Your task to perform on an android device: add a contact in the contacts app Image 0: 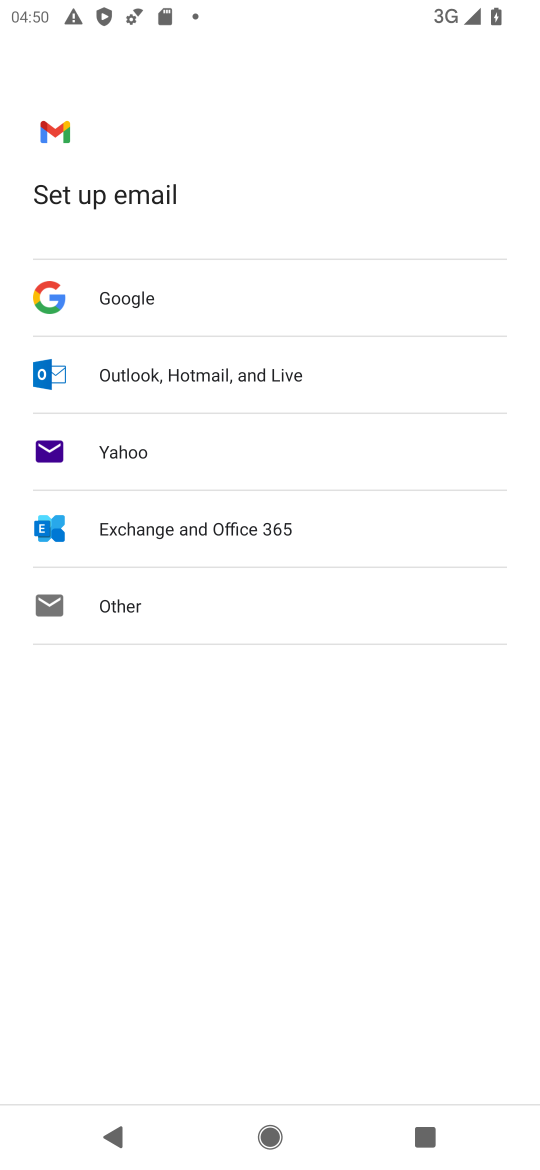
Step 0: press home button
Your task to perform on an android device: add a contact in the contacts app Image 1: 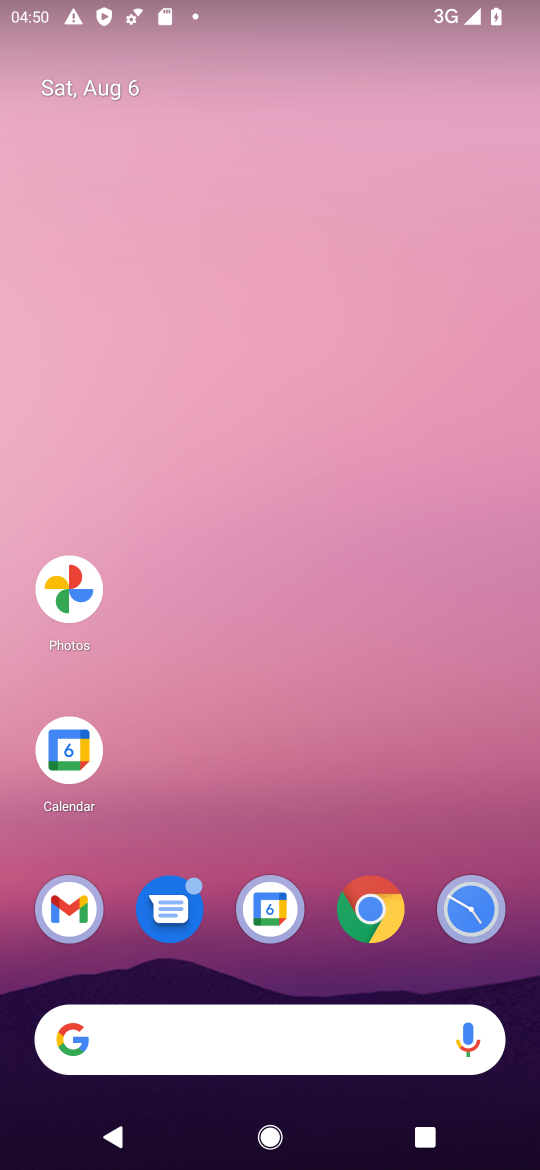
Step 1: drag from (344, 821) to (274, 50)
Your task to perform on an android device: add a contact in the contacts app Image 2: 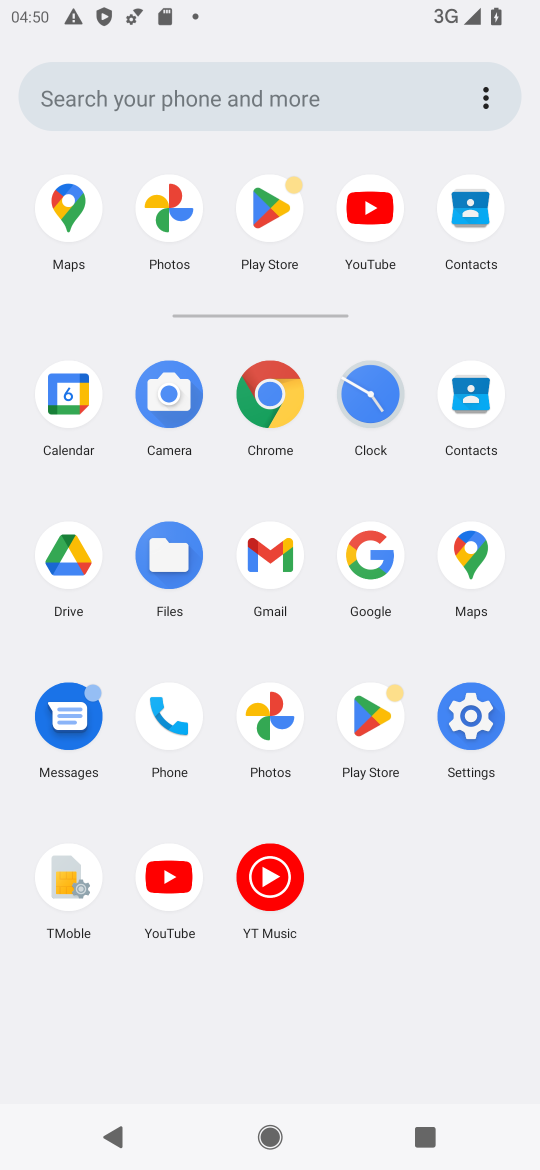
Step 2: click (460, 201)
Your task to perform on an android device: add a contact in the contacts app Image 3: 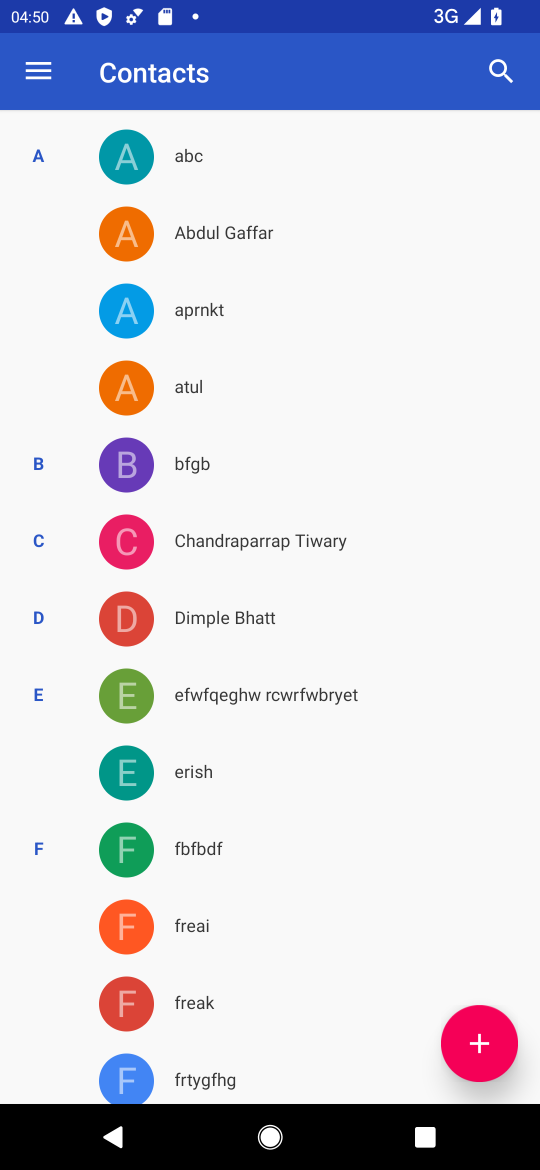
Step 3: click (481, 1043)
Your task to perform on an android device: add a contact in the contacts app Image 4: 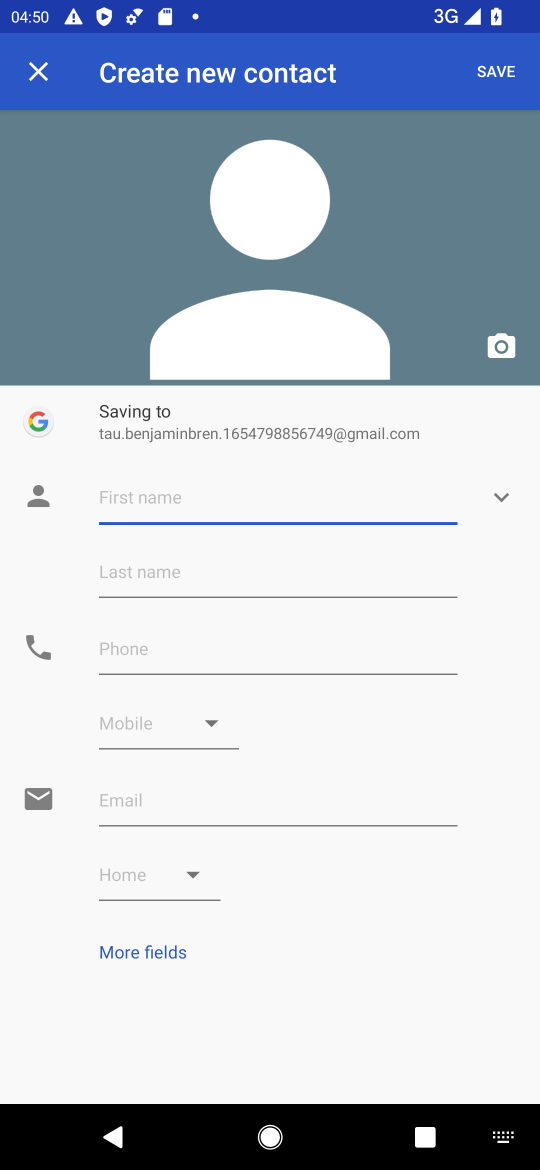
Step 4: type "nnnnnn"
Your task to perform on an android device: add a contact in the contacts app Image 5: 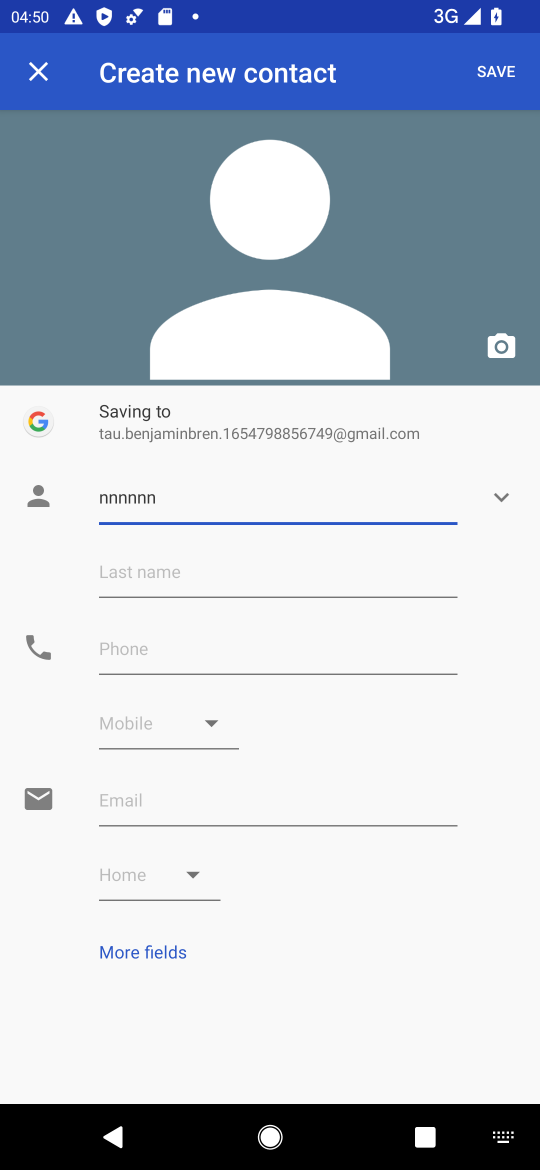
Step 5: click (145, 638)
Your task to perform on an android device: add a contact in the contacts app Image 6: 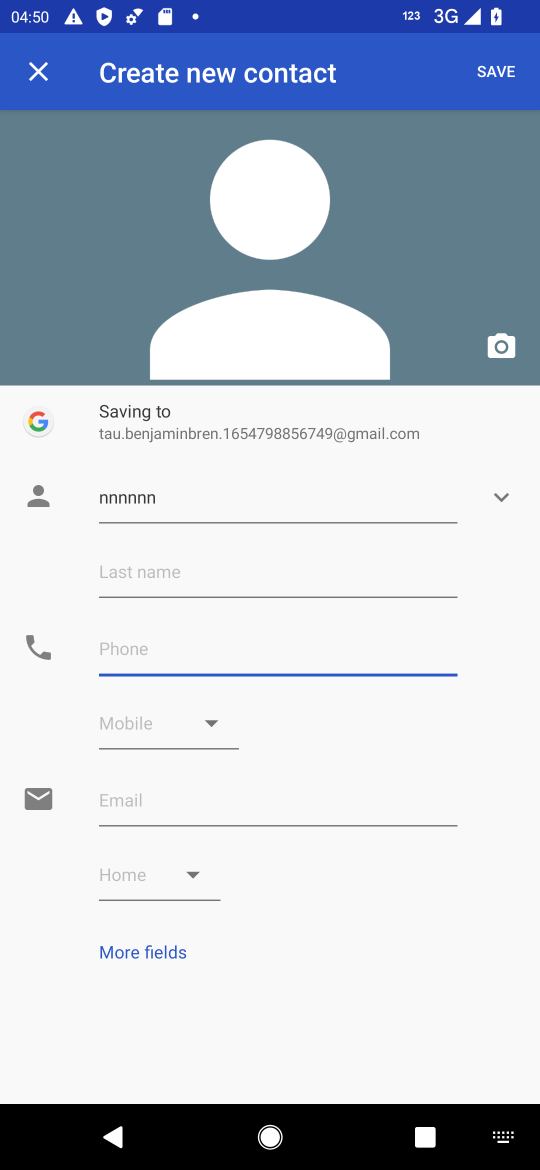
Step 6: type "88888"
Your task to perform on an android device: add a contact in the contacts app Image 7: 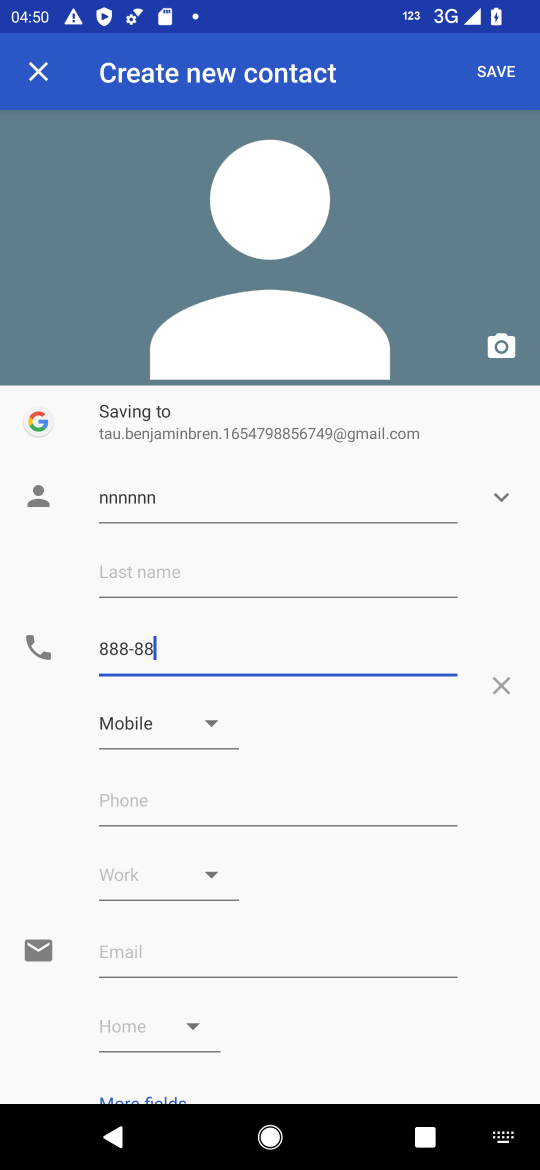
Step 7: click (510, 78)
Your task to perform on an android device: add a contact in the contacts app Image 8: 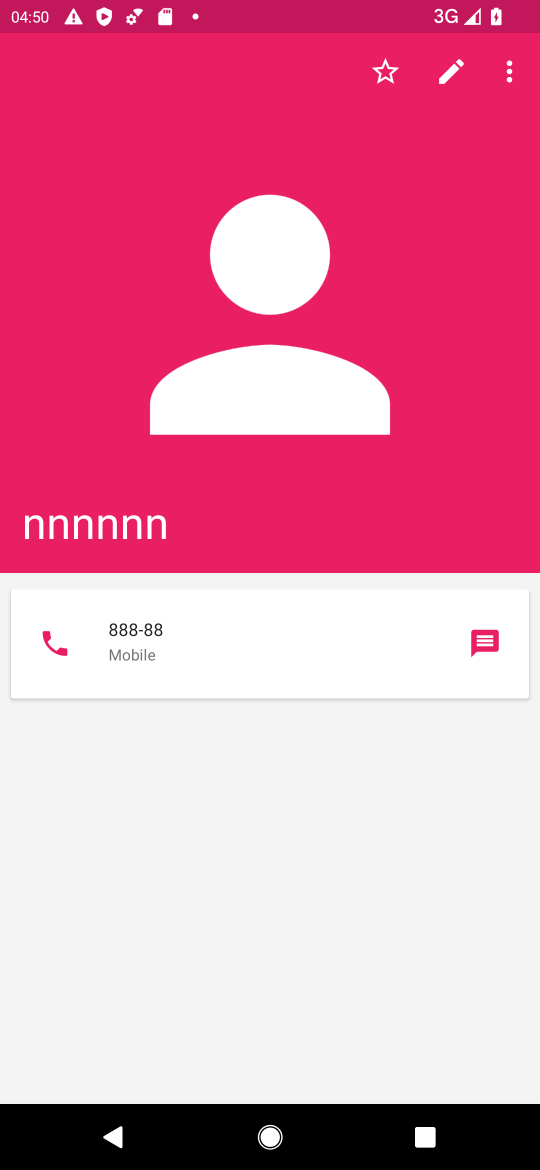
Step 8: task complete